Your task to perform on an android device: check battery use Image 0: 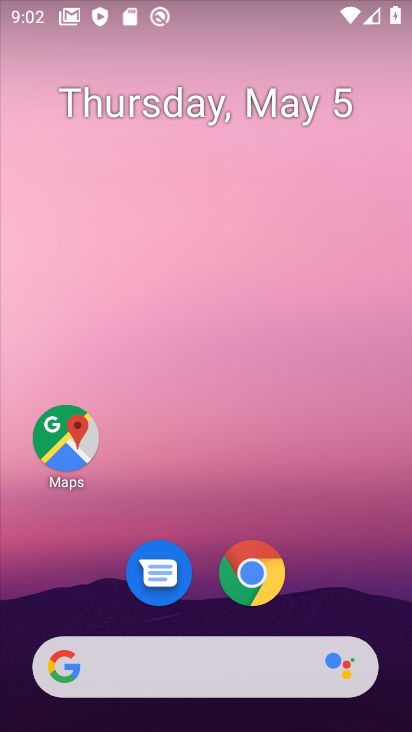
Step 0: drag from (224, 556) to (292, 17)
Your task to perform on an android device: check battery use Image 1: 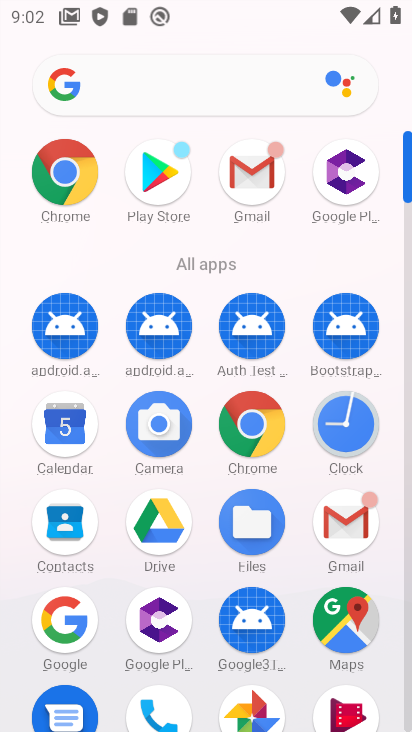
Step 1: drag from (184, 665) to (258, 63)
Your task to perform on an android device: check battery use Image 2: 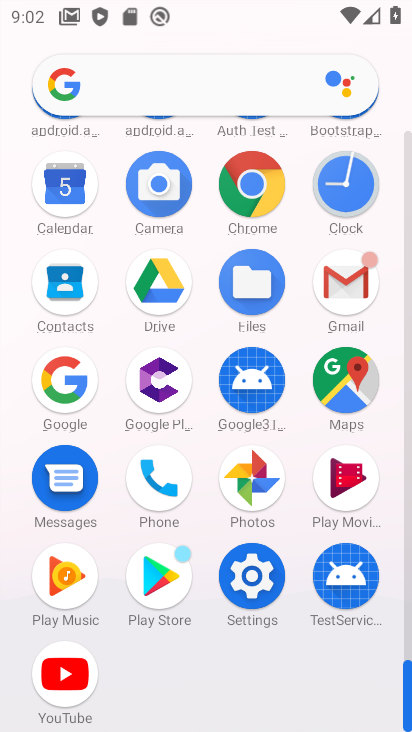
Step 2: click (254, 570)
Your task to perform on an android device: check battery use Image 3: 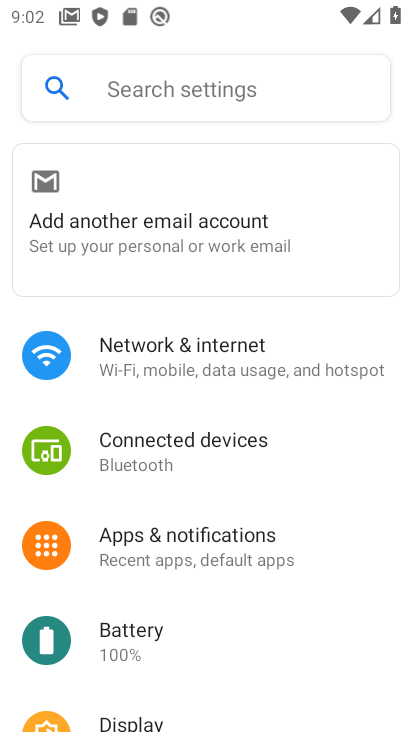
Step 3: click (161, 643)
Your task to perform on an android device: check battery use Image 4: 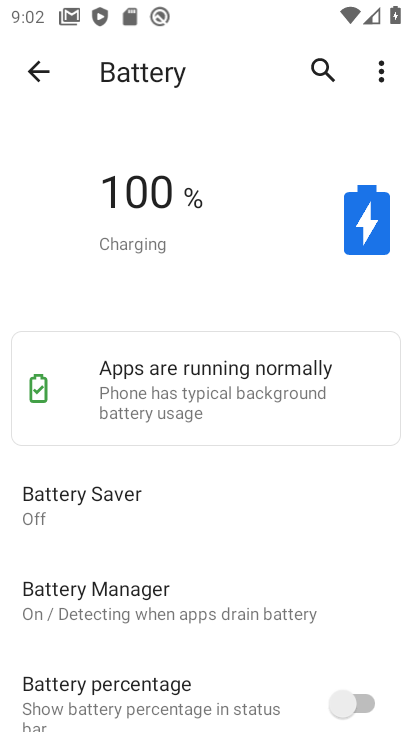
Step 4: drag from (377, 69) to (273, 224)
Your task to perform on an android device: check battery use Image 5: 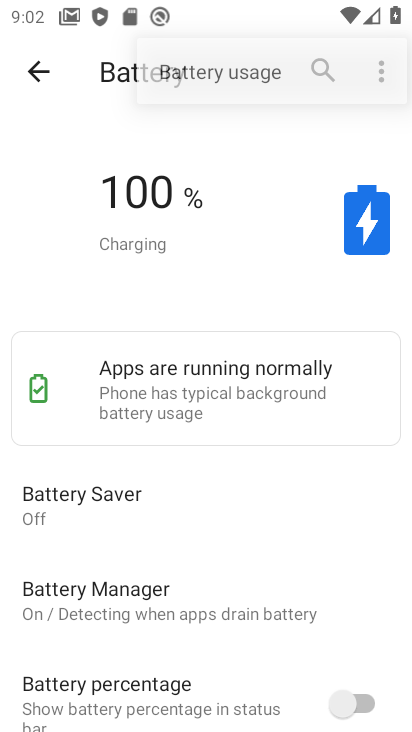
Step 5: click (241, 80)
Your task to perform on an android device: check battery use Image 6: 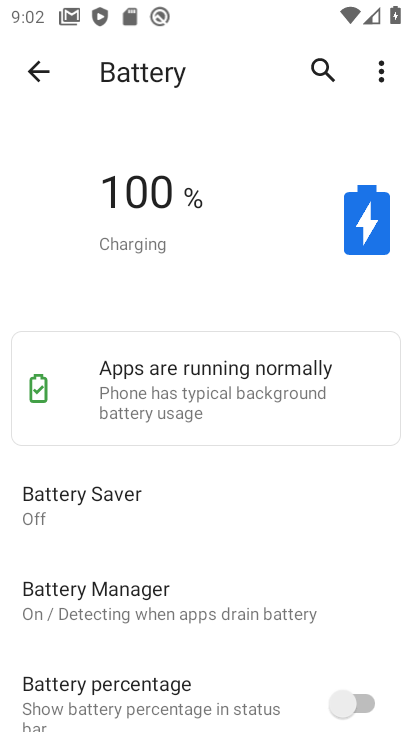
Step 6: click (382, 63)
Your task to perform on an android device: check battery use Image 7: 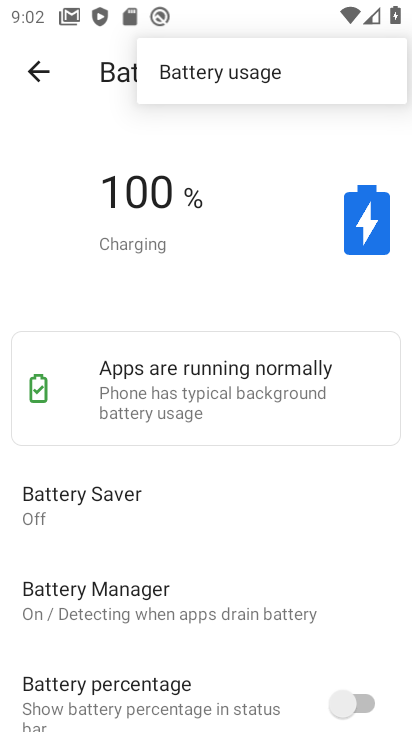
Step 7: click (211, 76)
Your task to perform on an android device: check battery use Image 8: 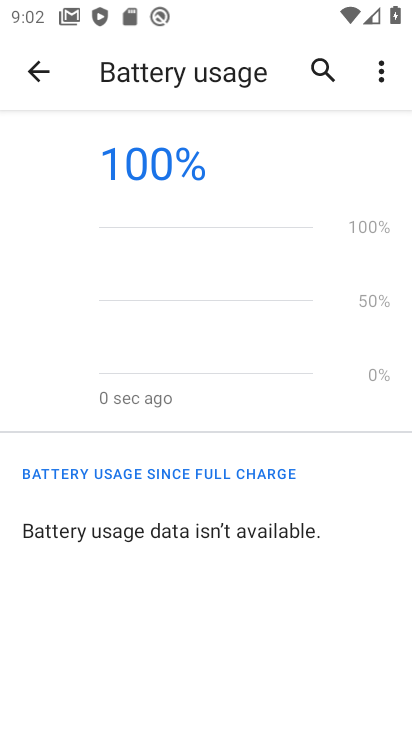
Step 8: task complete